Your task to perform on an android device: turn vacation reply on in the gmail app Image 0: 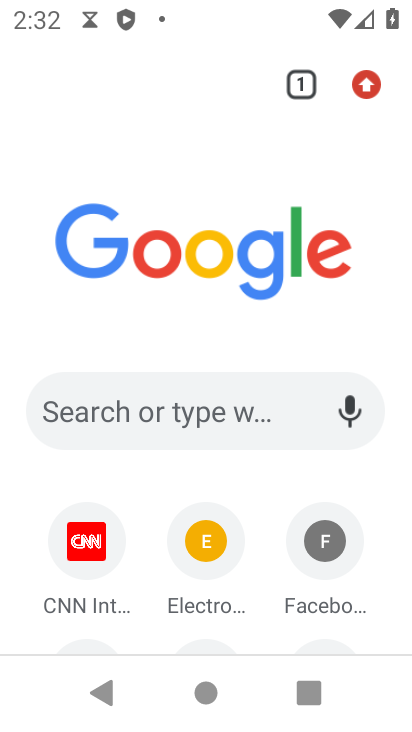
Step 0: press back button
Your task to perform on an android device: turn vacation reply on in the gmail app Image 1: 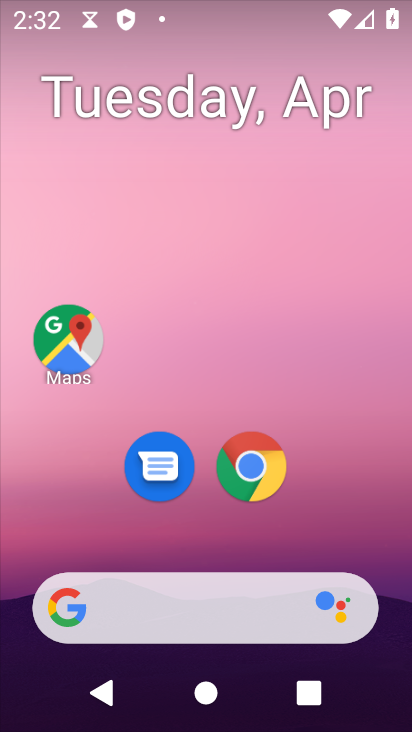
Step 1: drag from (350, 495) to (258, 29)
Your task to perform on an android device: turn vacation reply on in the gmail app Image 2: 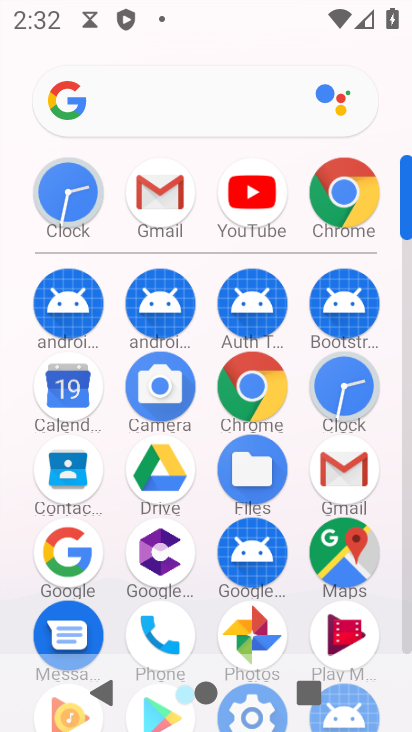
Step 2: drag from (6, 525) to (7, 205)
Your task to perform on an android device: turn vacation reply on in the gmail app Image 3: 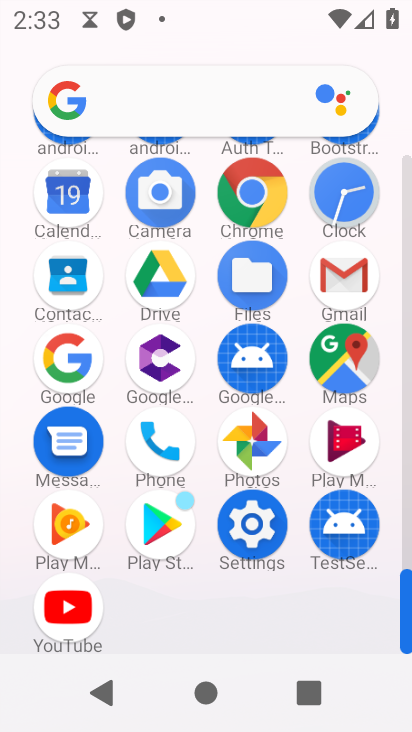
Step 3: click (343, 275)
Your task to perform on an android device: turn vacation reply on in the gmail app Image 4: 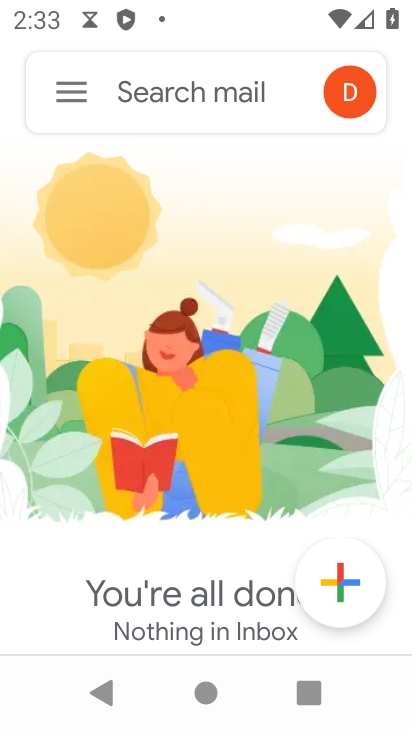
Step 4: click (62, 84)
Your task to perform on an android device: turn vacation reply on in the gmail app Image 5: 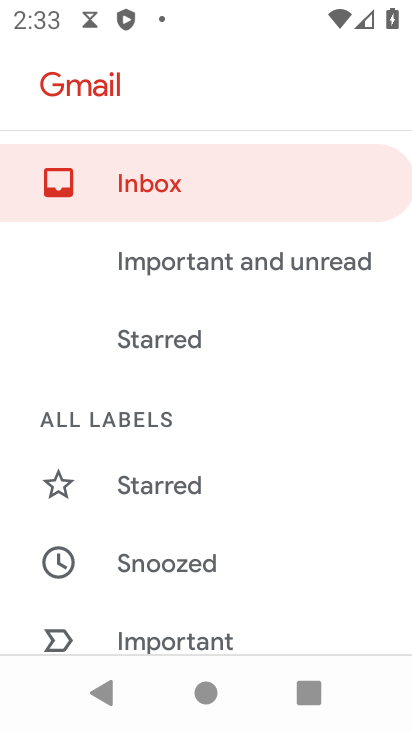
Step 5: drag from (284, 539) to (268, 180)
Your task to perform on an android device: turn vacation reply on in the gmail app Image 6: 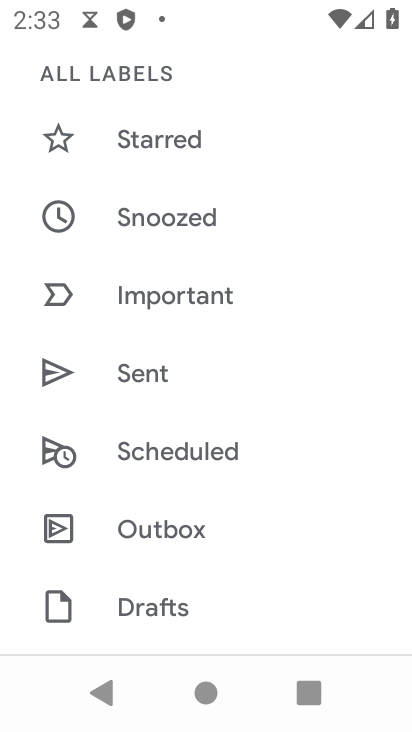
Step 6: click (260, 100)
Your task to perform on an android device: turn vacation reply on in the gmail app Image 7: 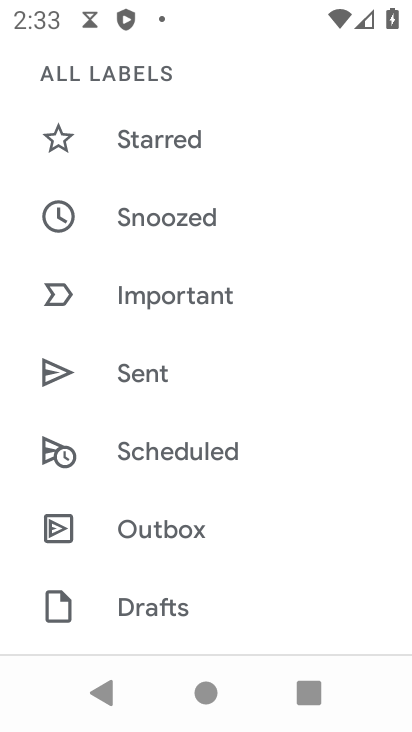
Step 7: drag from (234, 570) to (244, 105)
Your task to perform on an android device: turn vacation reply on in the gmail app Image 8: 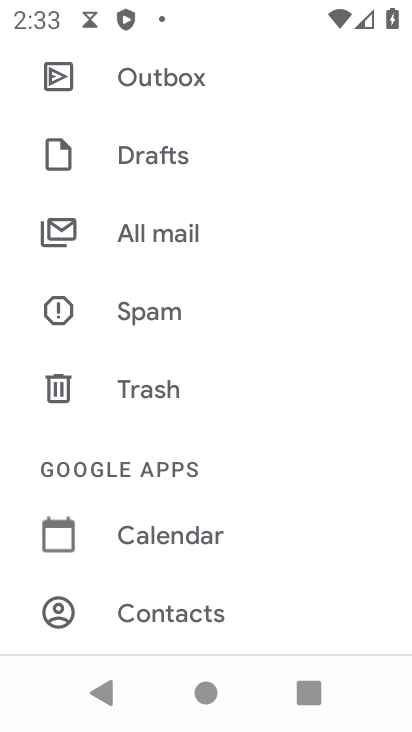
Step 8: drag from (196, 574) to (193, 320)
Your task to perform on an android device: turn vacation reply on in the gmail app Image 9: 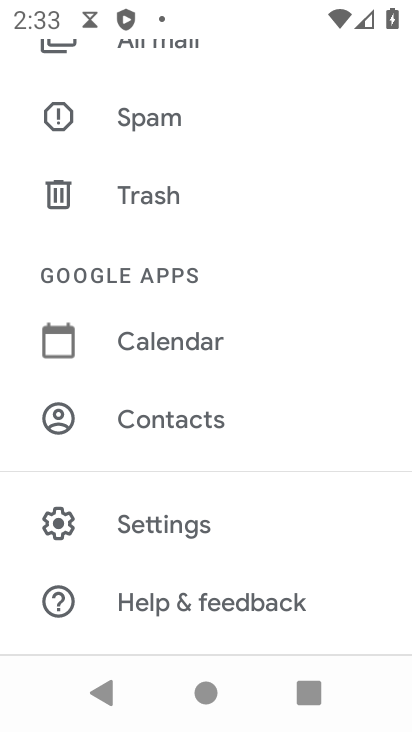
Step 9: click (202, 521)
Your task to perform on an android device: turn vacation reply on in the gmail app Image 10: 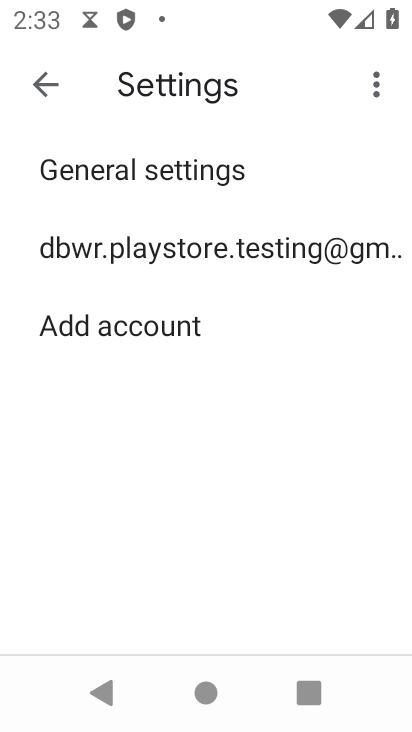
Step 10: click (201, 230)
Your task to perform on an android device: turn vacation reply on in the gmail app Image 11: 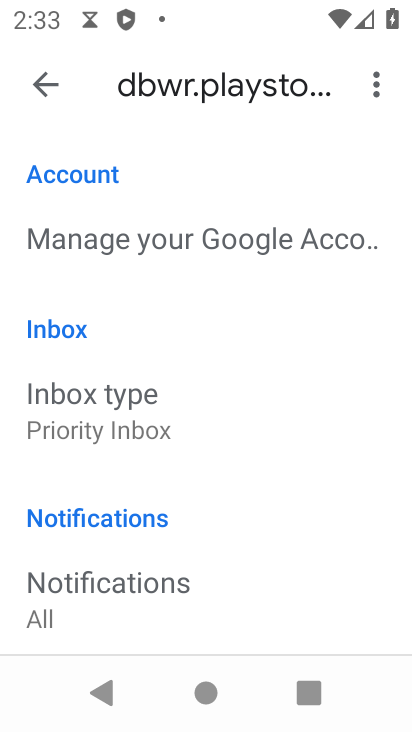
Step 11: task complete